Your task to perform on an android device: toggle data saver in the chrome app Image 0: 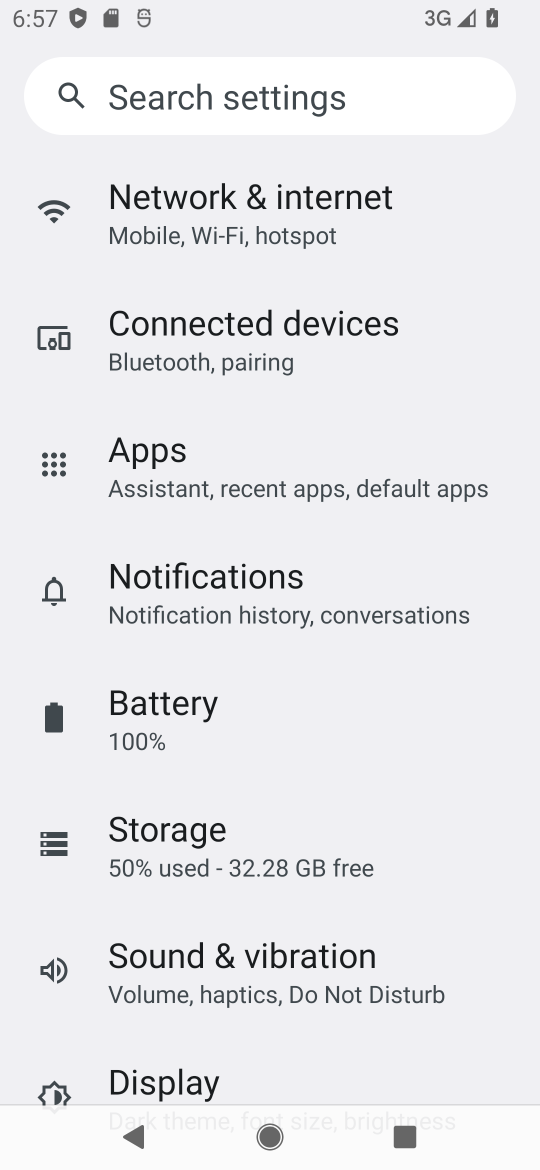
Step 0: press home button
Your task to perform on an android device: toggle data saver in the chrome app Image 1: 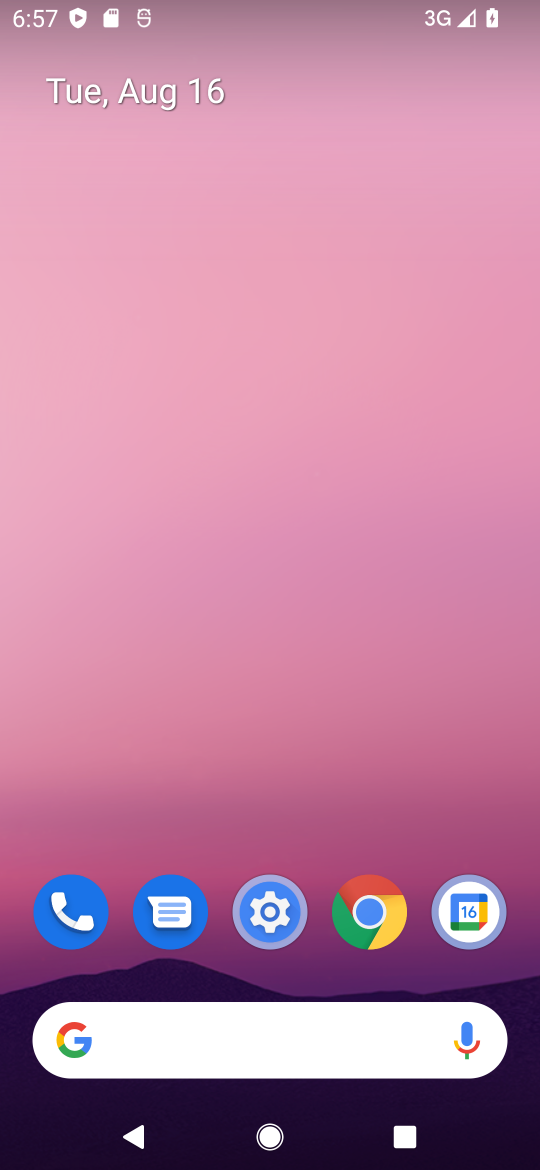
Step 1: click (370, 911)
Your task to perform on an android device: toggle data saver in the chrome app Image 2: 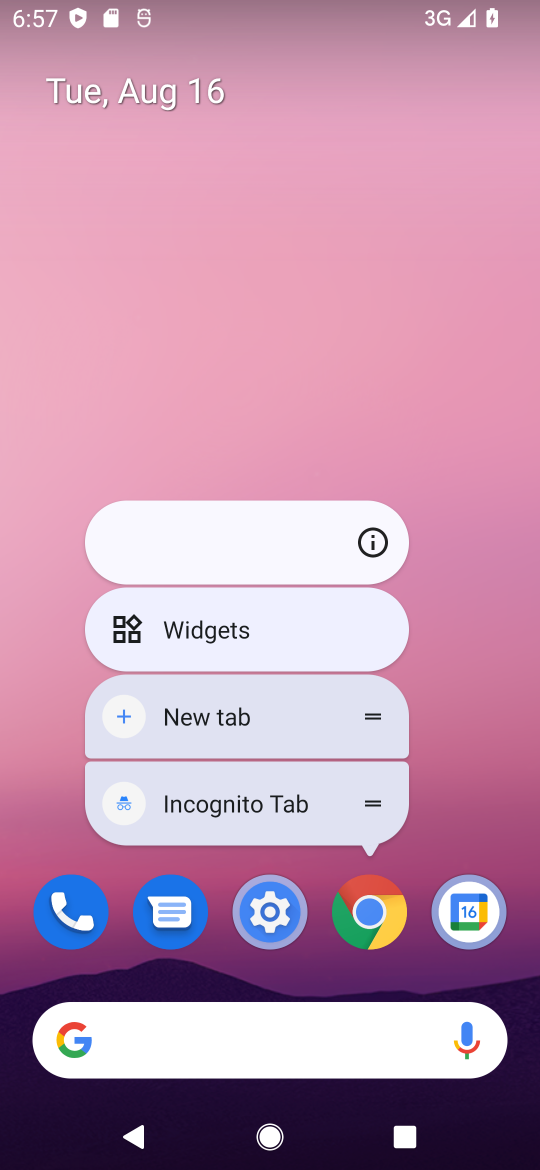
Step 2: click (370, 911)
Your task to perform on an android device: toggle data saver in the chrome app Image 3: 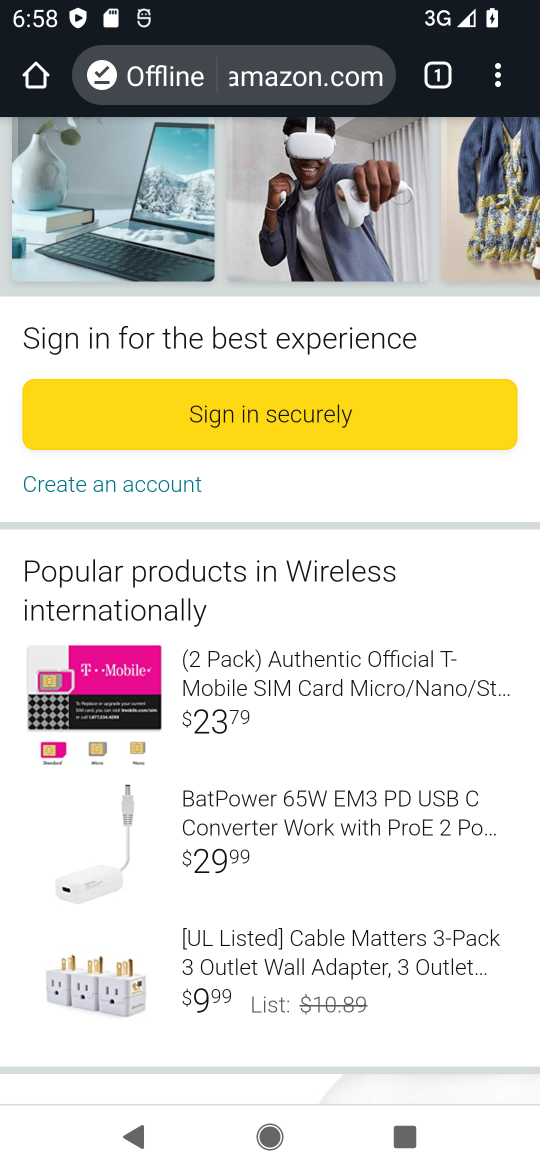
Step 3: click (493, 83)
Your task to perform on an android device: toggle data saver in the chrome app Image 4: 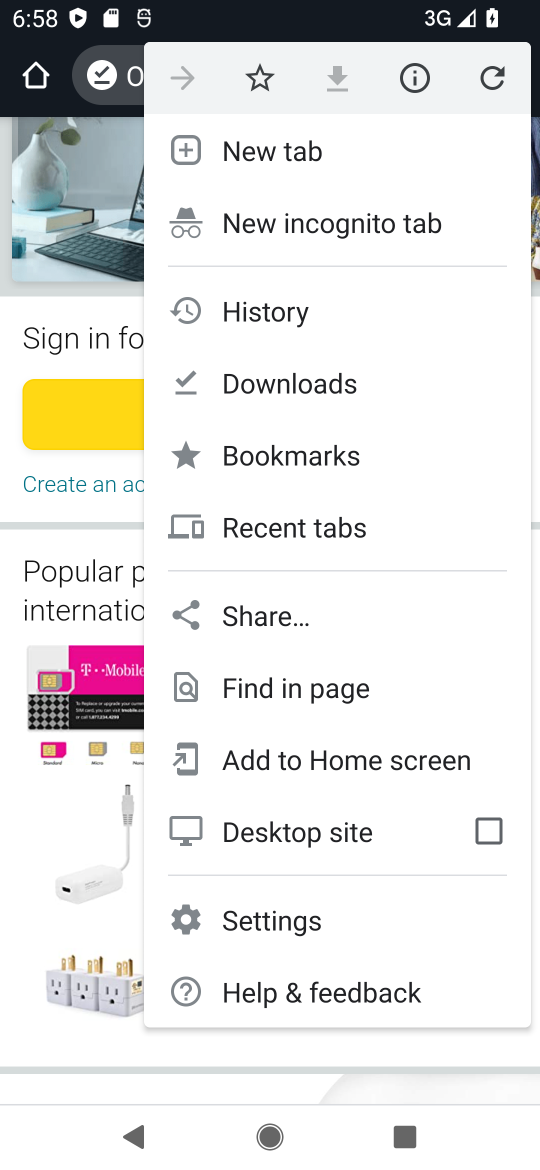
Step 4: click (263, 920)
Your task to perform on an android device: toggle data saver in the chrome app Image 5: 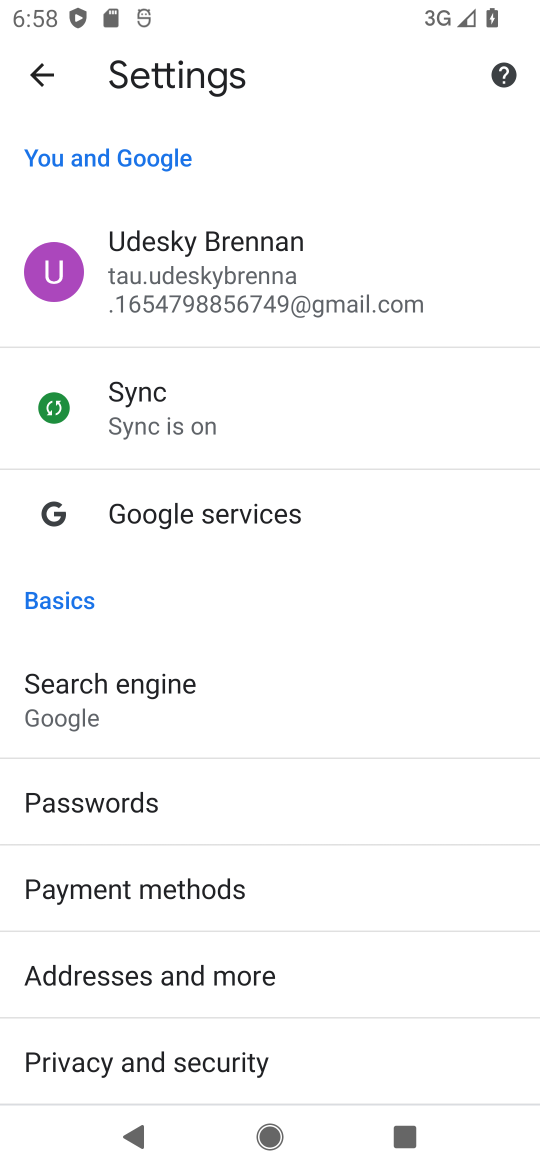
Step 5: drag from (291, 991) to (310, 362)
Your task to perform on an android device: toggle data saver in the chrome app Image 6: 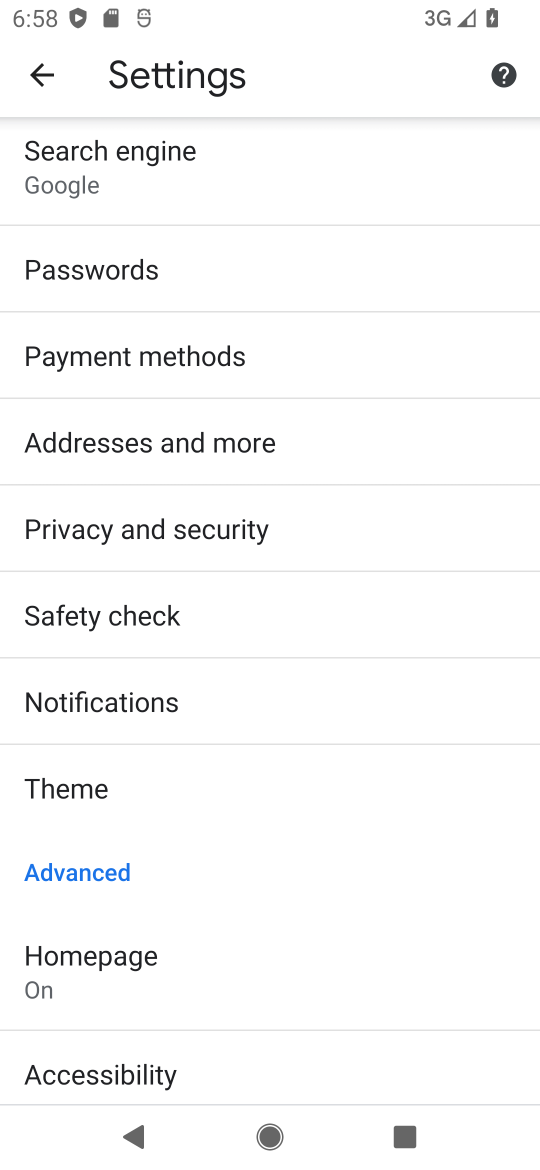
Step 6: drag from (318, 1006) to (335, 353)
Your task to perform on an android device: toggle data saver in the chrome app Image 7: 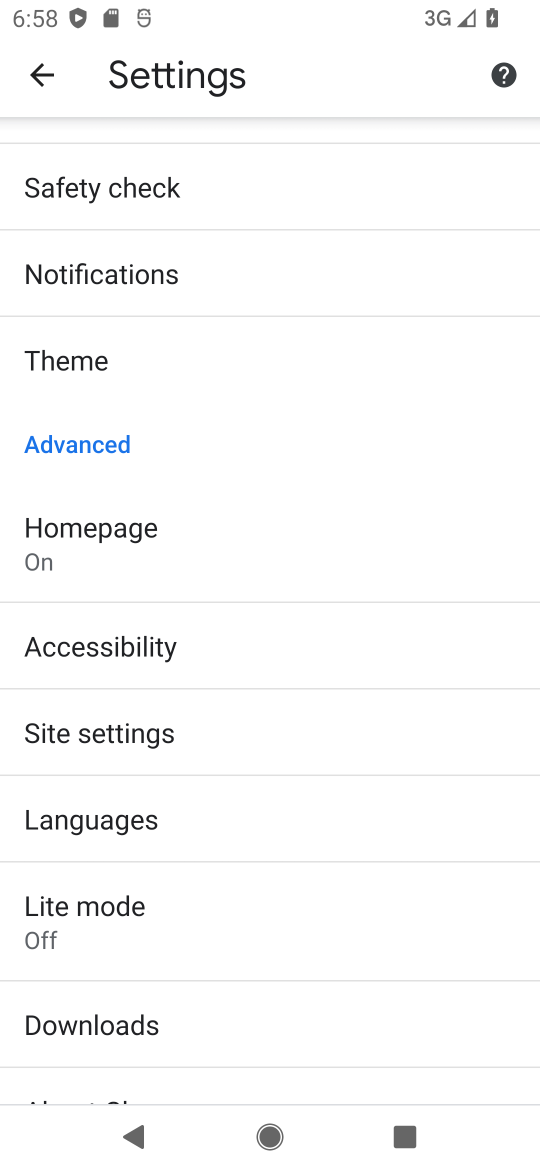
Step 7: click (84, 918)
Your task to perform on an android device: toggle data saver in the chrome app Image 8: 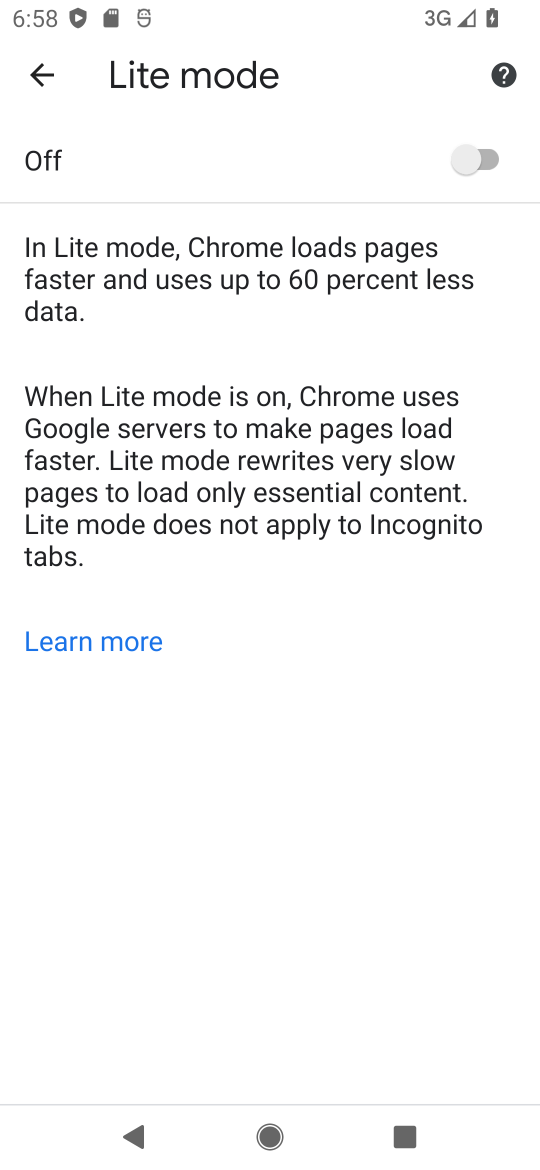
Step 8: click (491, 159)
Your task to perform on an android device: toggle data saver in the chrome app Image 9: 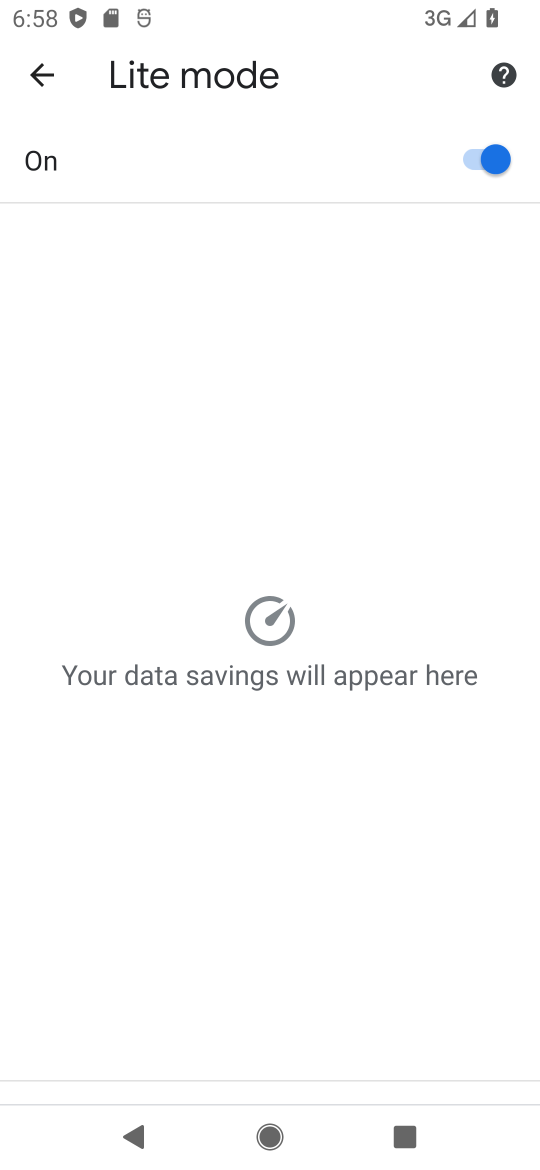
Step 9: task complete